Your task to perform on an android device: Open the phone app and click the voicemail tab. Image 0: 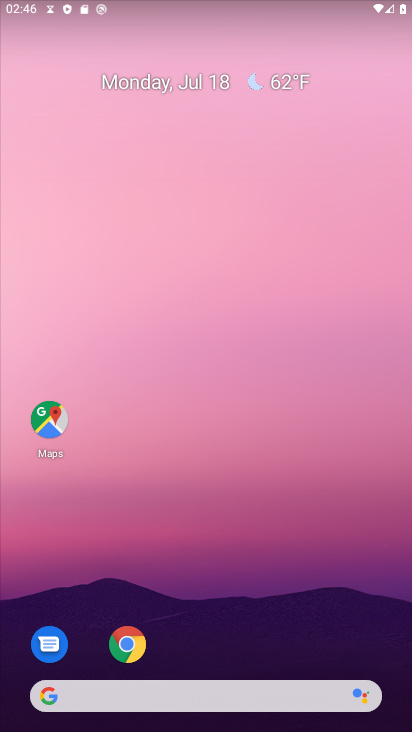
Step 0: drag from (250, 644) to (179, 259)
Your task to perform on an android device: Open the phone app and click the voicemail tab. Image 1: 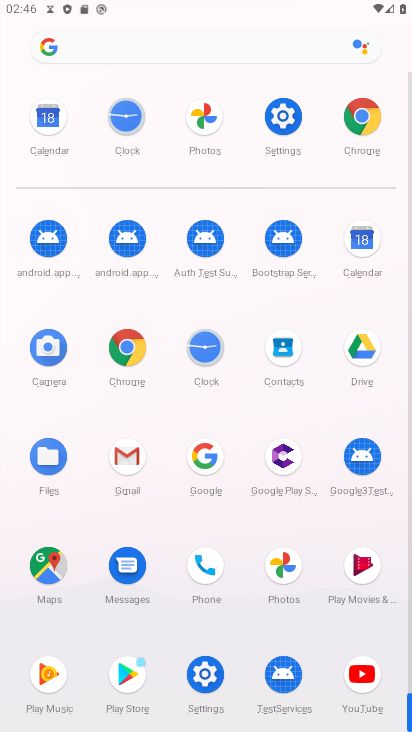
Step 1: click (195, 577)
Your task to perform on an android device: Open the phone app and click the voicemail tab. Image 2: 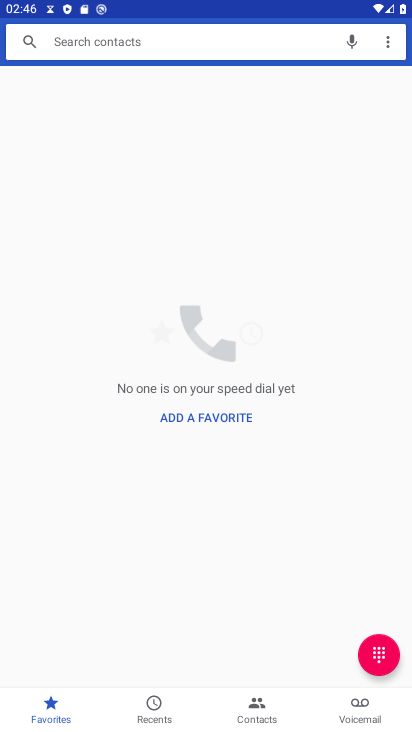
Step 2: click (359, 702)
Your task to perform on an android device: Open the phone app and click the voicemail tab. Image 3: 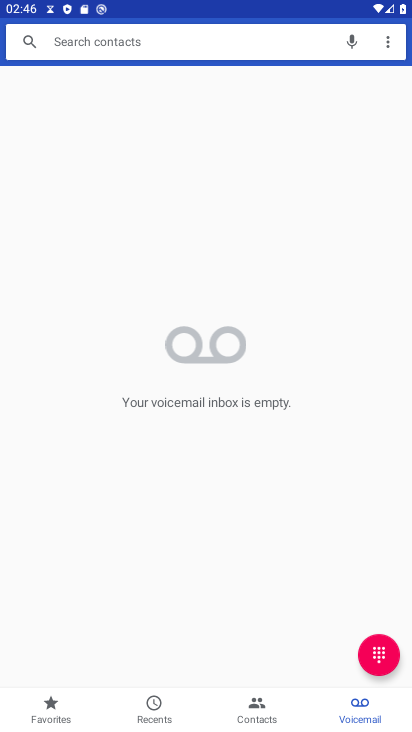
Step 3: click (356, 704)
Your task to perform on an android device: Open the phone app and click the voicemail tab. Image 4: 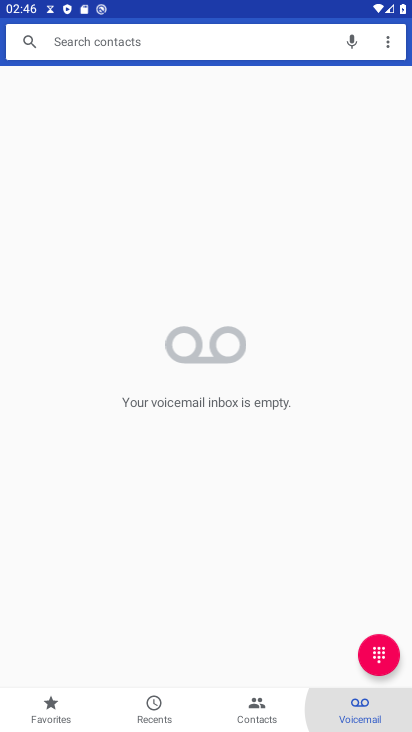
Step 4: task complete